Your task to perform on an android device: turn on data saver in the chrome app Image 0: 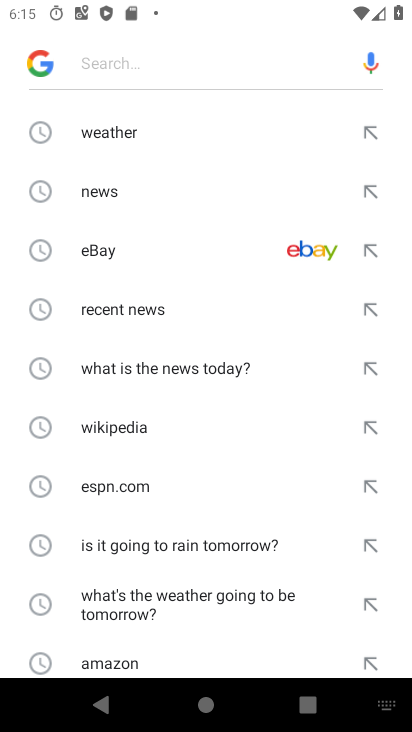
Step 0: press home button
Your task to perform on an android device: turn on data saver in the chrome app Image 1: 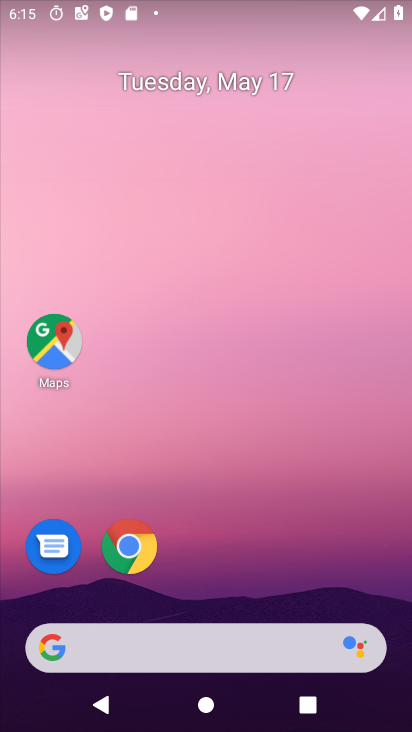
Step 1: click (131, 548)
Your task to perform on an android device: turn on data saver in the chrome app Image 2: 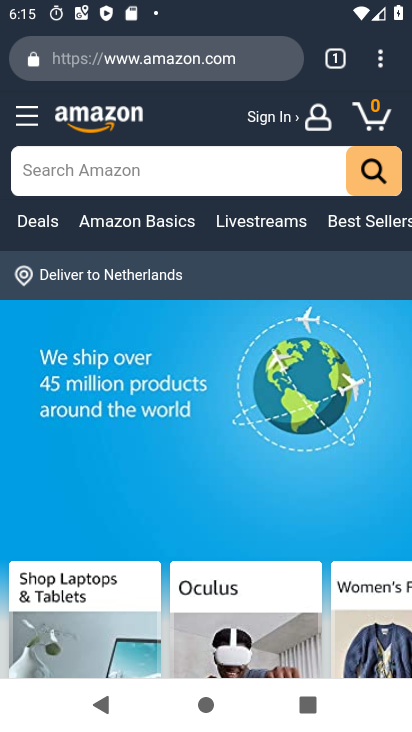
Step 2: click (381, 76)
Your task to perform on an android device: turn on data saver in the chrome app Image 3: 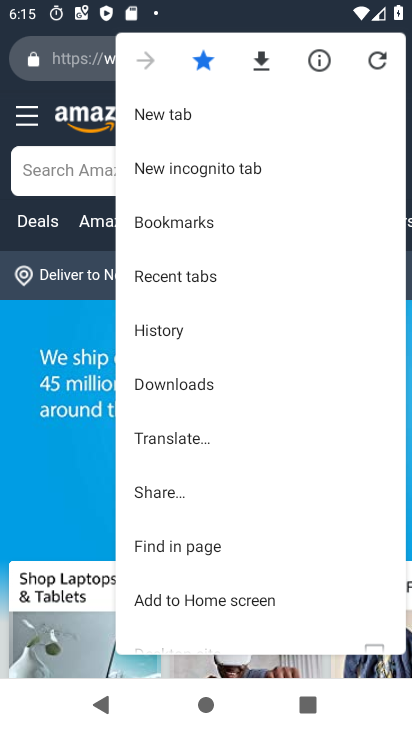
Step 3: drag from (161, 579) to (187, 265)
Your task to perform on an android device: turn on data saver in the chrome app Image 4: 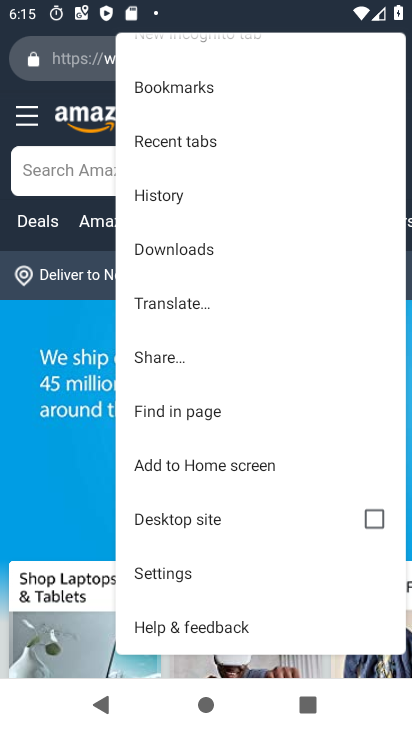
Step 4: click (184, 575)
Your task to perform on an android device: turn on data saver in the chrome app Image 5: 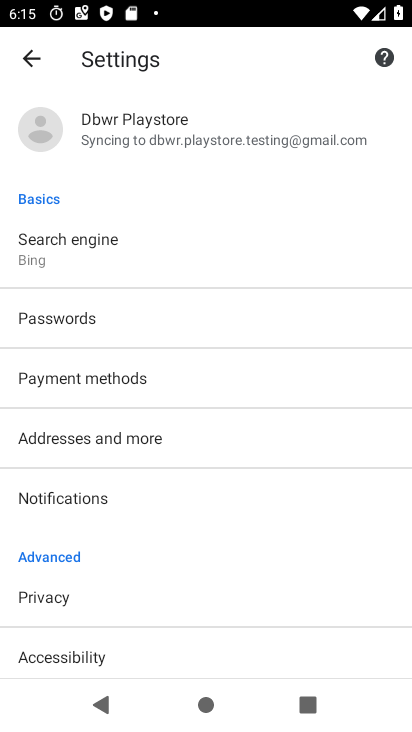
Step 5: drag from (183, 596) to (184, 304)
Your task to perform on an android device: turn on data saver in the chrome app Image 6: 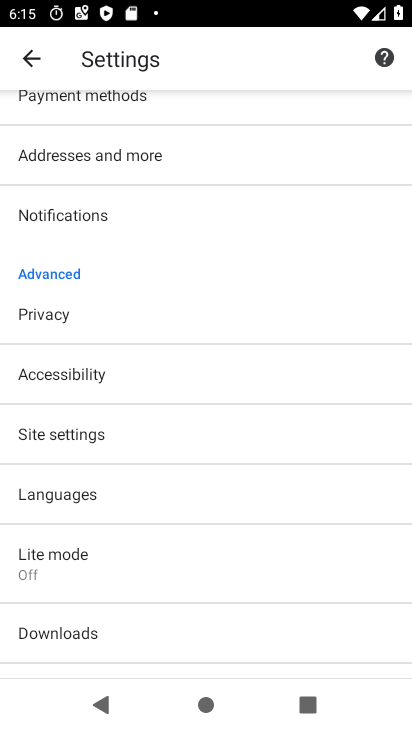
Step 6: drag from (141, 634) to (131, 113)
Your task to perform on an android device: turn on data saver in the chrome app Image 7: 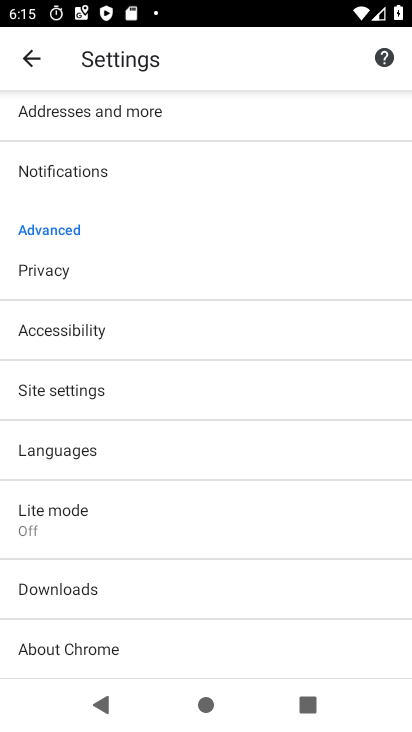
Step 7: click (41, 518)
Your task to perform on an android device: turn on data saver in the chrome app Image 8: 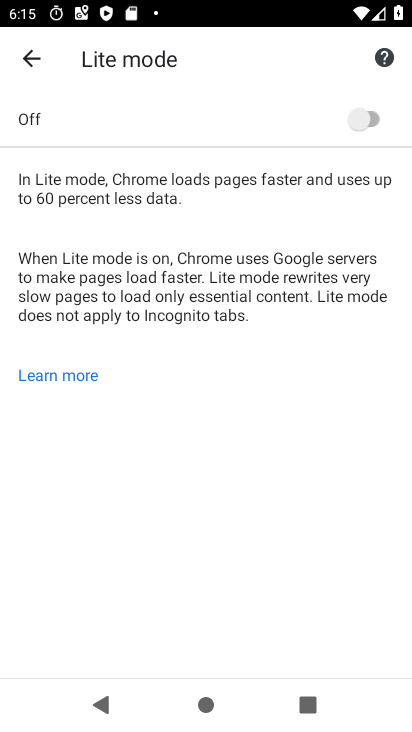
Step 8: click (376, 117)
Your task to perform on an android device: turn on data saver in the chrome app Image 9: 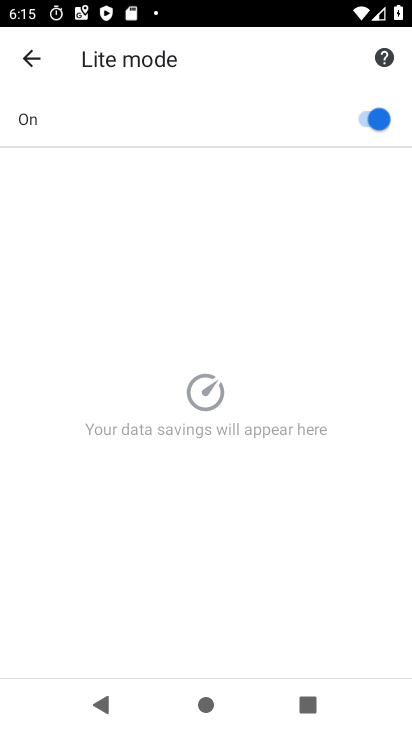
Step 9: task complete